Your task to perform on an android device: turn on showing notifications on the lock screen Image 0: 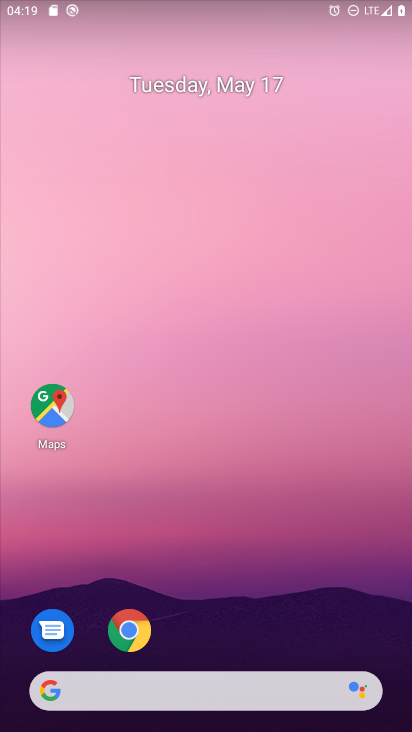
Step 0: drag from (196, 647) to (262, 22)
Your task to perform on an android device: turn on showing notifications on the lock screen Image 1: 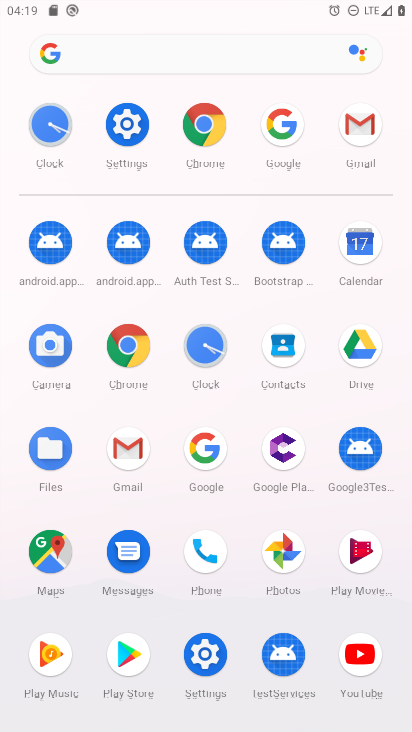
Step 1: click (130, 110)
Your task to perform on an android device: turn on showing notifications on the lock screen Image 2: 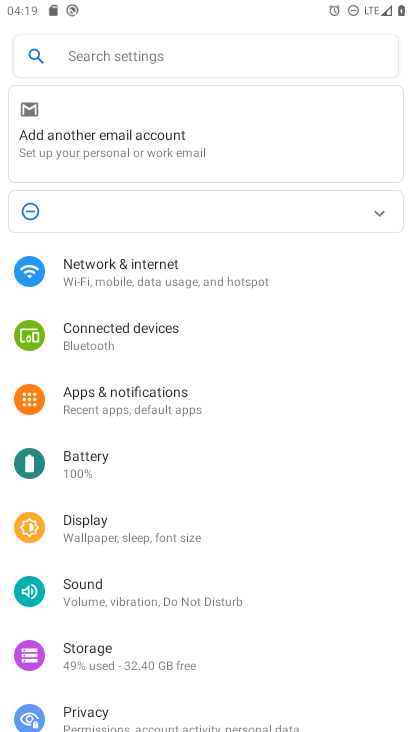
Step 2: click (183, 397)
Your task to perform on an android device: turn on showing notifications on the lock screen Image 3: 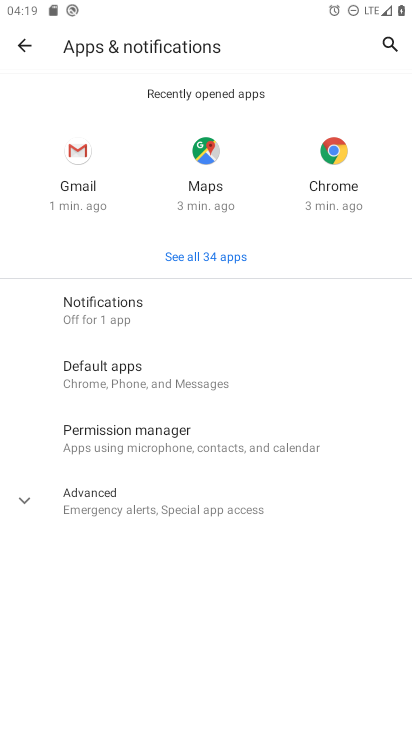
Step 3: click (135, 306)
Your task to perform on an android device: turn on showing notifications on the lock screen Image 4: 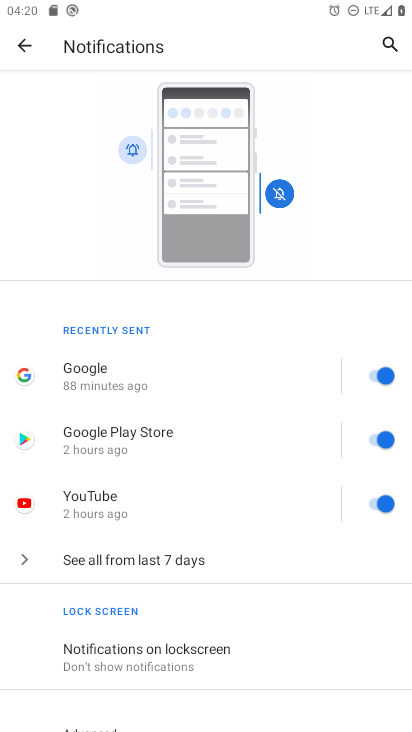
Step 4: drag from (102, 676) to (175, 356)
Your task to perform on an android device: turn on showing notifications on the lock screen Image 5: 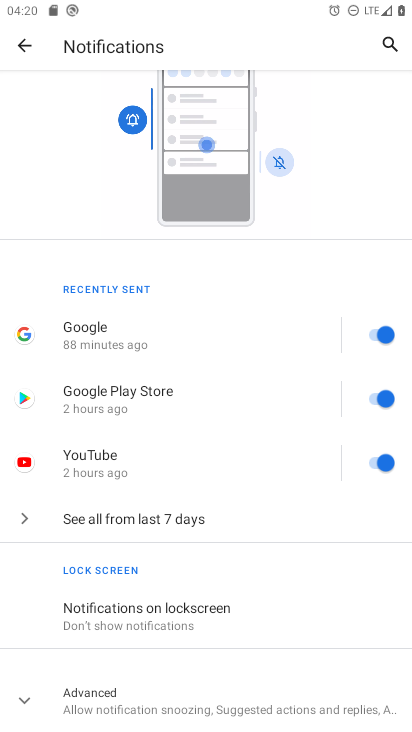
Step 5: click (139, 627)
Your task to perform on an android device: turn on showing notifications on the lock screen Image 6: 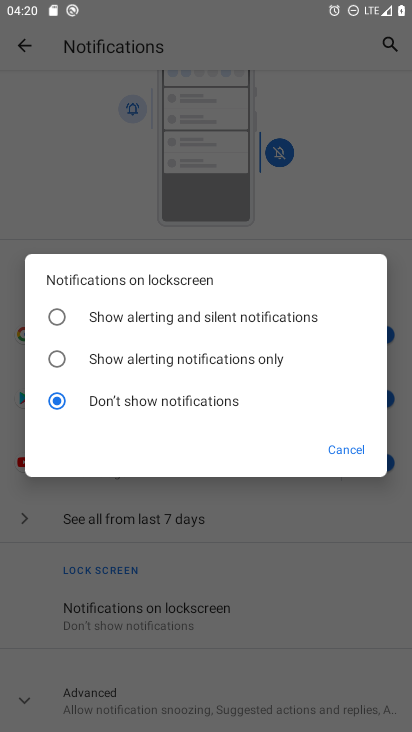
Step 6: click (65, 324)
Your task to perform on an android device: turn on showing notifications on the lock screen Image 7: 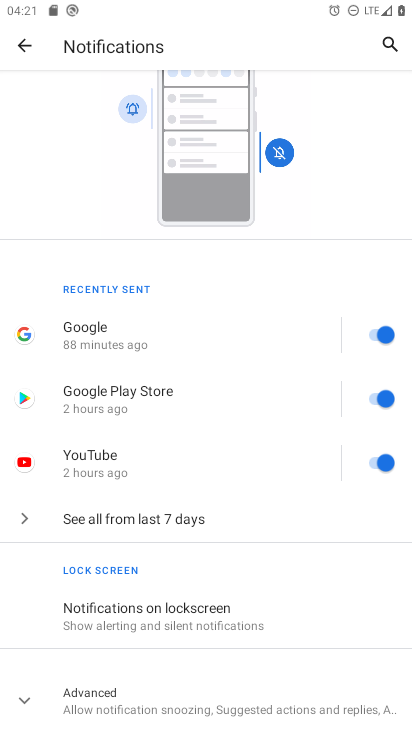
Step 7: click (181, 608)
Your task to perform on an android device: turn on showing notifications on the lock screen Image 8: 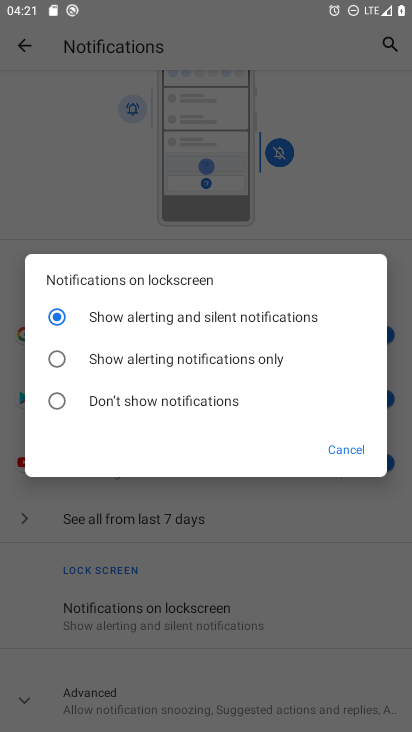
Step 8: task complete